Your task to perform on an android device: Go to CNN.com Image 0: 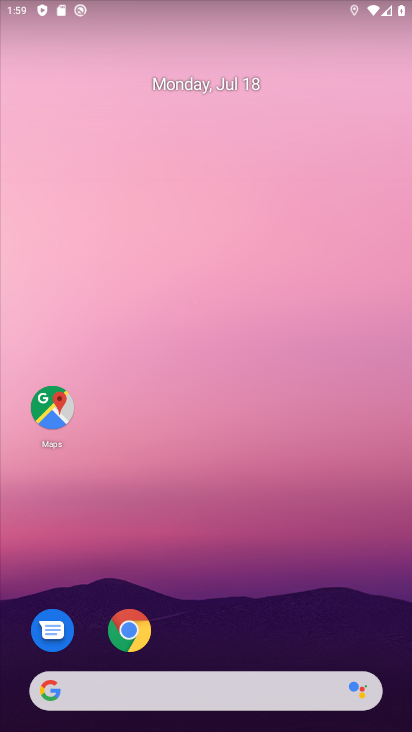
Step 0: click (130, 628)
Your task to perform on an android device: Go to CNN.com Image 1: 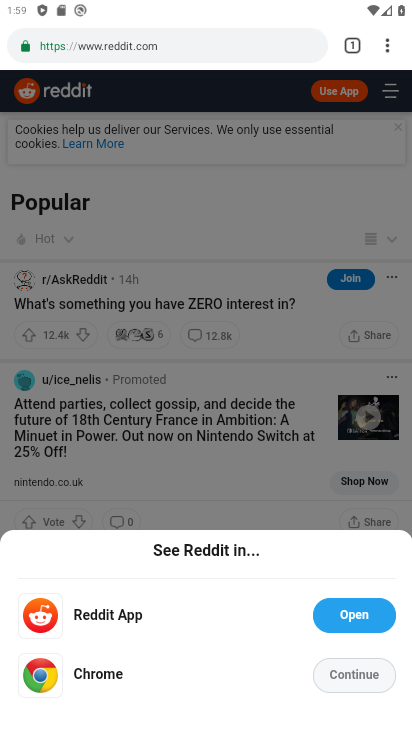
Step 1: click (177, 50)
Your task to perform on an android device: Go to CNN.com Image 2: 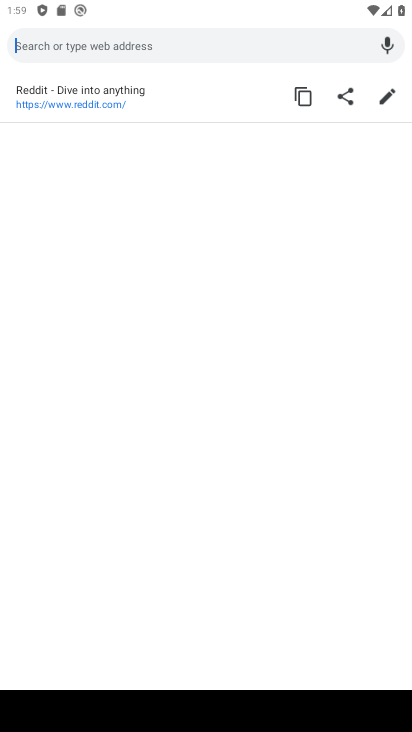
Step 2: type "CNN.com"
Your task to perform on an android device: Go to CNN.com Image 3: 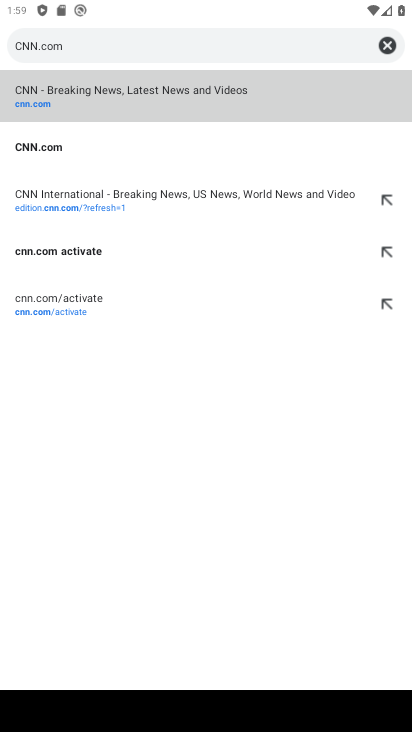
Step 3: click (62, 97)
Your task to perform on an android device: Go to CNN.com Image 4: 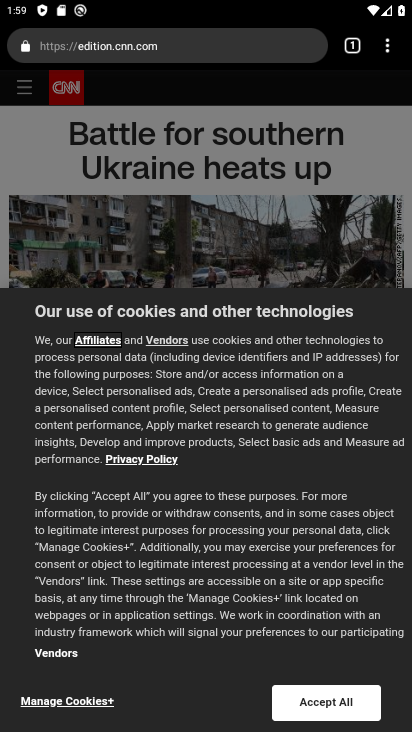
Step 4: drag from (257, 463) to (249, 220)
Your task to perform on an android device: Go to CNN.com Image 5: 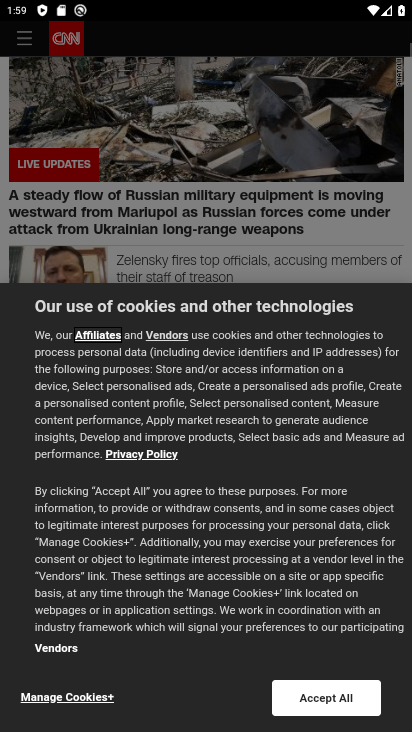
Step 5: click (315, 699)
Your task to perform on an android device: Go to CNN.com Image 6: 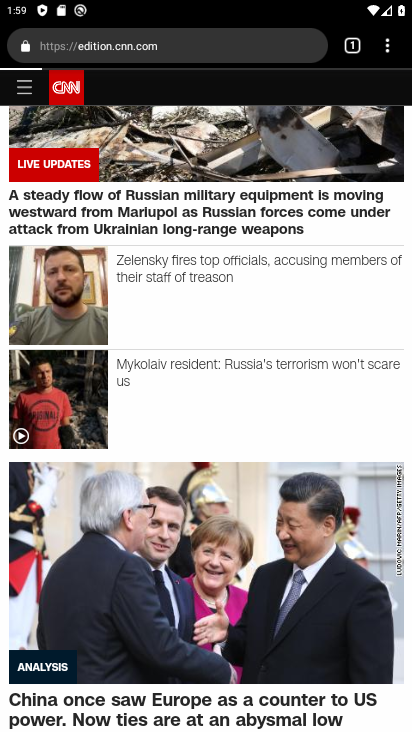
Step 6: task complete